Your task to perform on an android device: Go to Reddit.com Image 0: 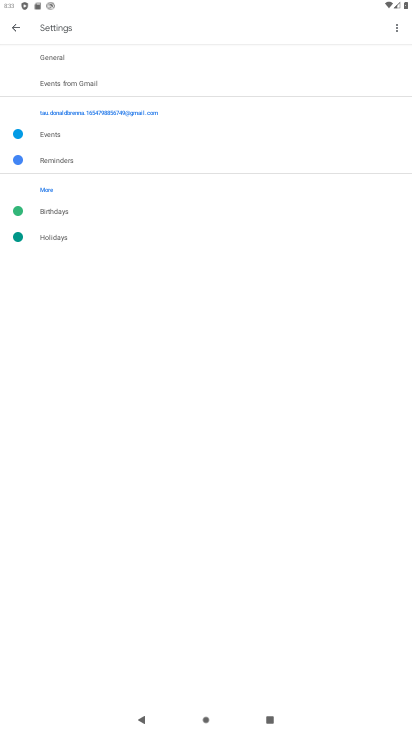
Step 0: press home button
Your task to perform on an android device: Go to Reddit.com Image 1: 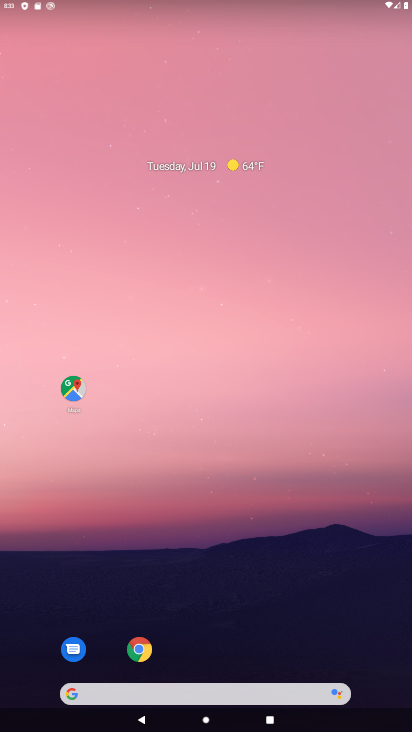
Step 1: click (139, 654)
Your task to perform on an android device: Go to Reddit.com Image 2: 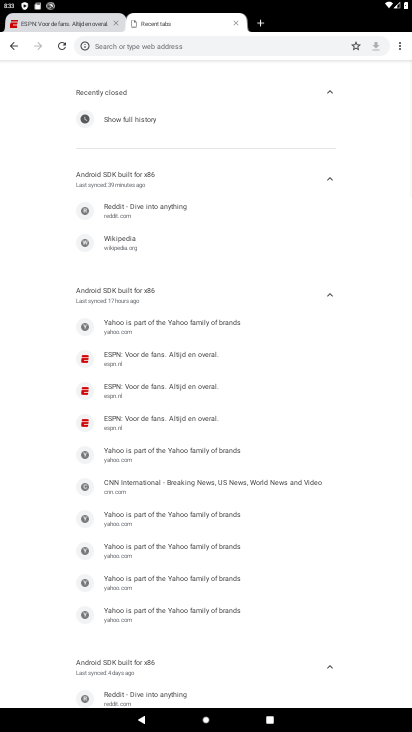
Step 2: click (254, 18)
Your task to perform on an android device: Go to Reddit.com Image 3: 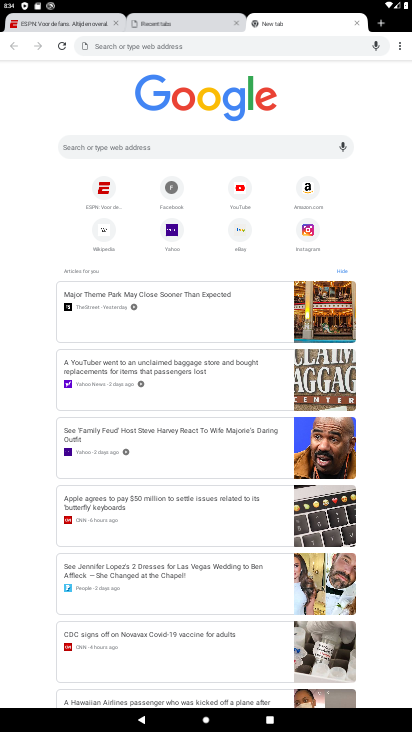
Step 3: click (242, 147)
Your task to perform on an android device: Go to Reddit.com Image 4: 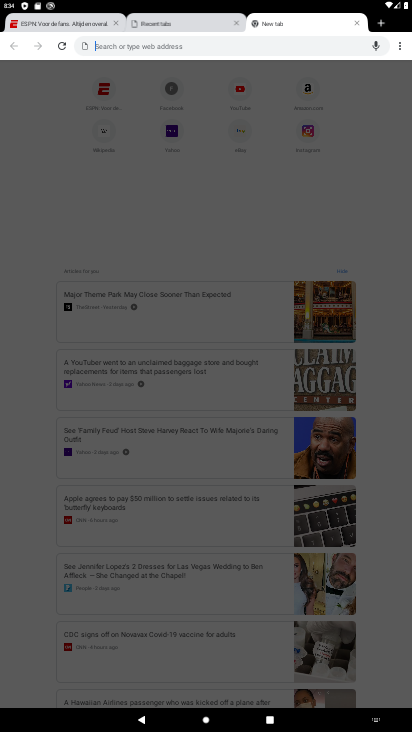
Step 4: type "Reddit.com"
Your task to perform on an android device: Go to Reddit.com Image 5: 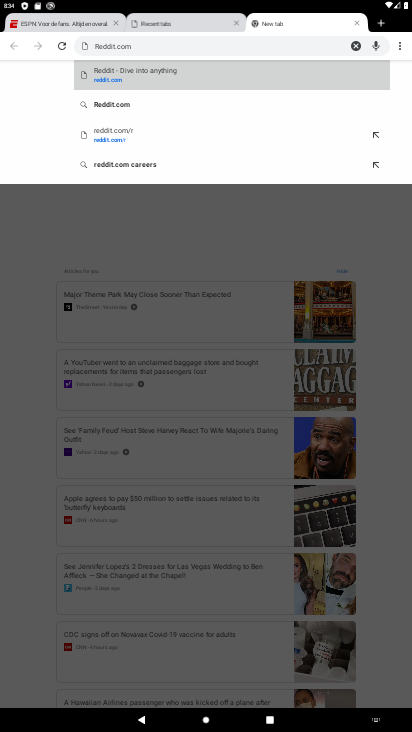
Step 5: click (164, 82)
Your task to perform on an android device: Go to Reddit.com Image 6: 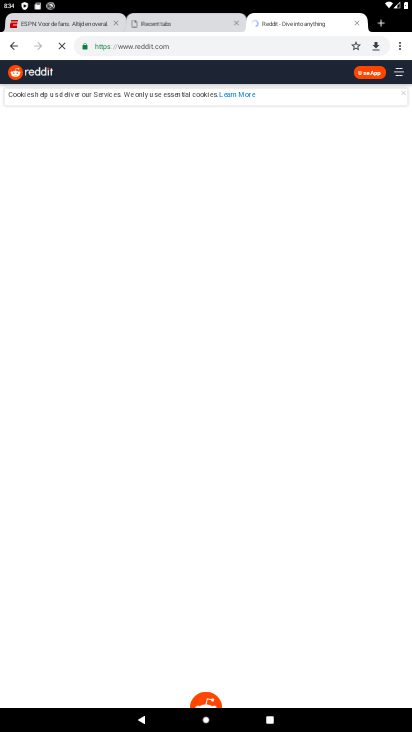
Step 6: task complete